Your task to perform on an android device: Open Google Chrome Image 0: 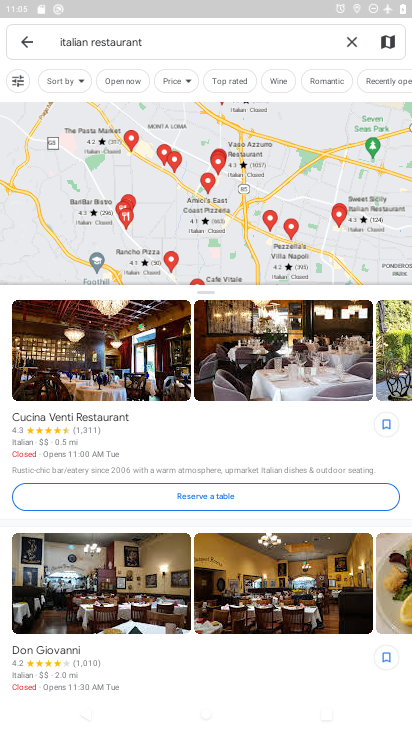
Step 0: press home button
Your task to perform on an android device: Open Google Chrome Image 1: 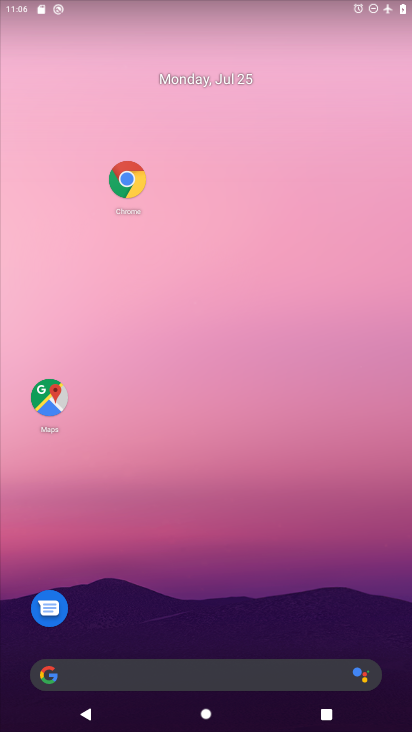
Step 1: click (121, 182)
Your task to perform on an android device: Open Google Chrome Image 2: 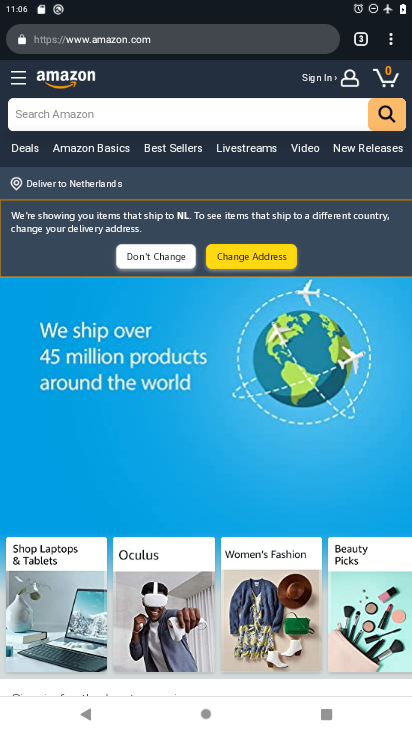
Step 2: task complete